Your task to perform on an android device: toggle show notifications on the lock screen Image 0: 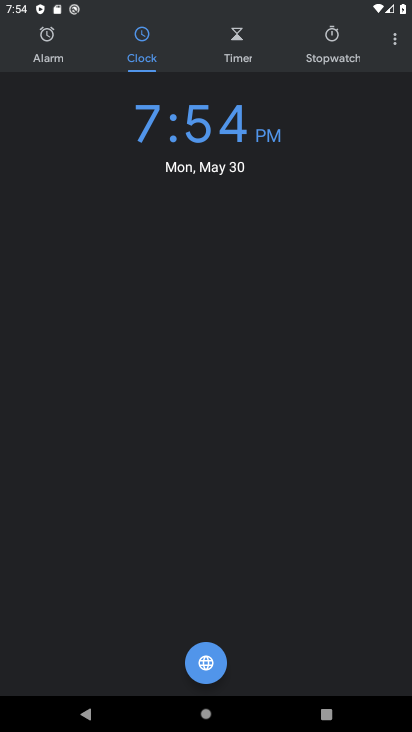
Step 0: press home button
Your task to perform on an android device: toggle show notifications on the lock screen Image 1: 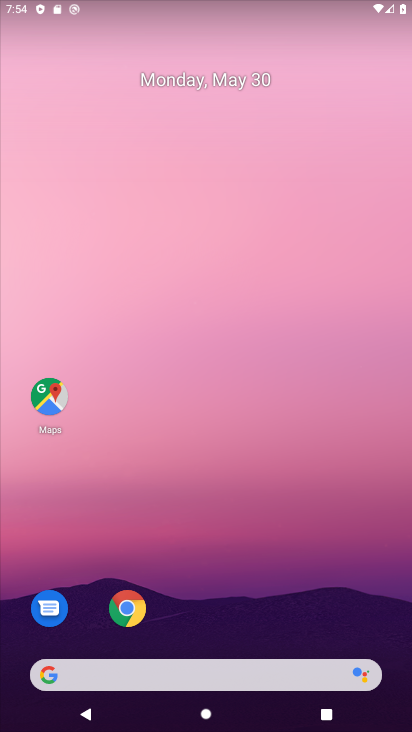
Step 1: drag from (227, 726) to (189, 184)
Your task to perform on an android device: toggle show notifications on the lock screen Image 2: 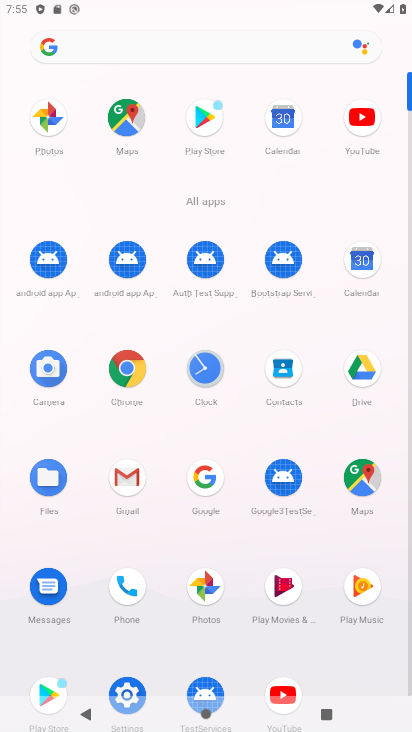
Step 2: click (126, 693)
Your task to perform on an android device: toggle show notifications on the lock screen Image 3: 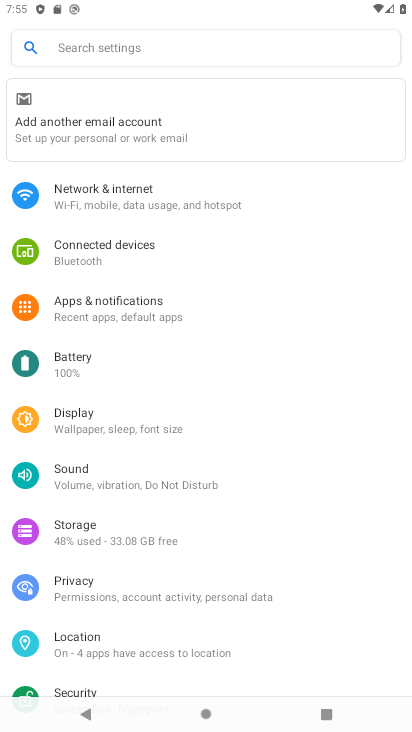
Step 3: click (96, 307)
Your task to perform on an android device: toggle show notifications on the lock screen Image 4: 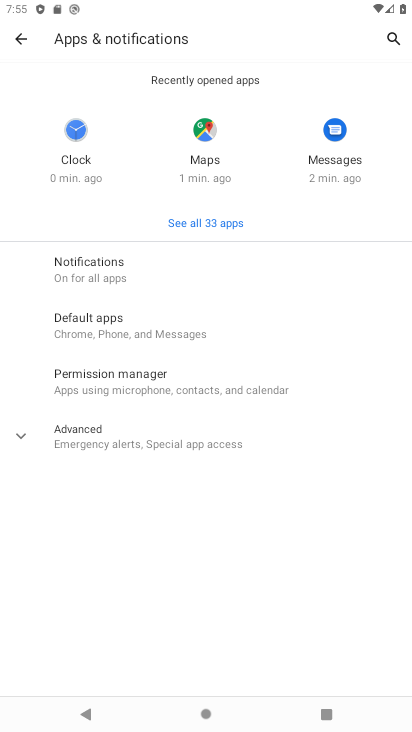
Step 4: click (78, 269)
Your task to perform on an android device: toggle show notifications on the lock screen Image 5: 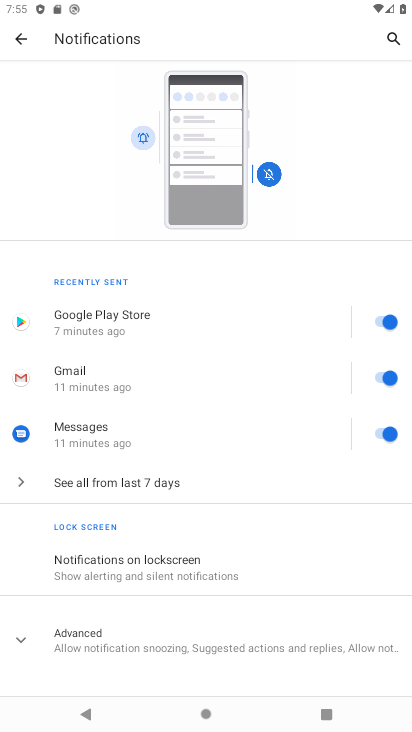
Step 5: click (123, 565)
Your task to perform on an android device: toggle show notifications on the lock screen Image 6: 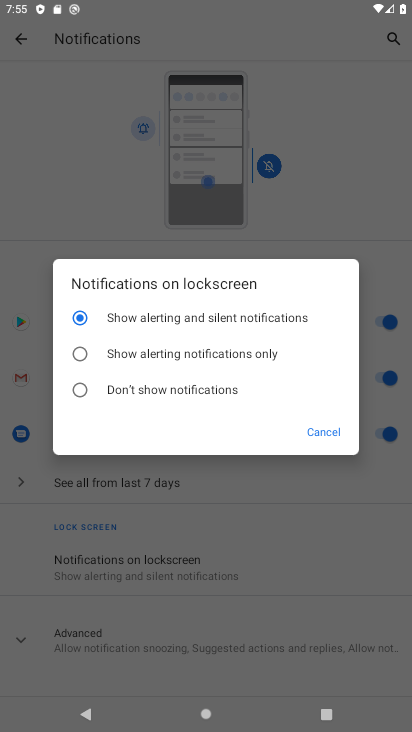
Step 6: click (78, 352)
Your task to perform on an android device: toggle show notifications on the lock screen Image 7: 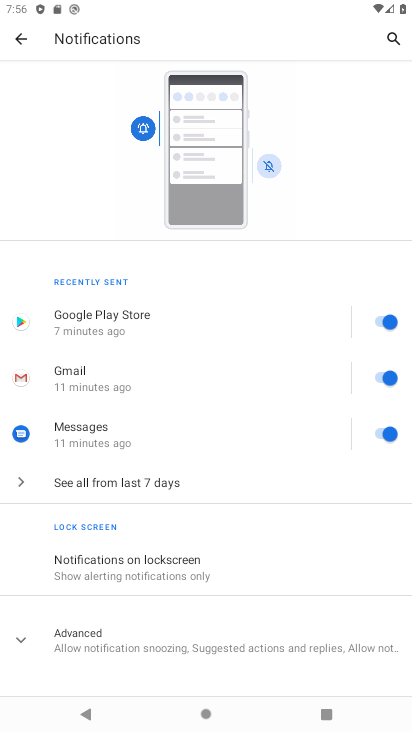
Step 7: task complete